Your task to perform on an android device: Check the weather Image 0: 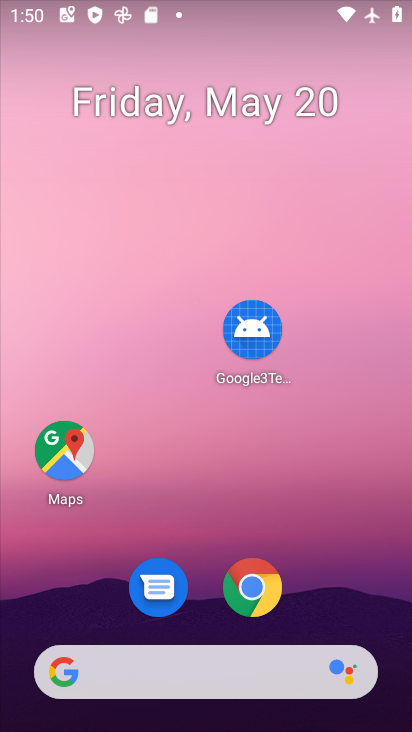
Step 0: click (213, 678)
Your task to perform on an android device: Check the weather Image 1: 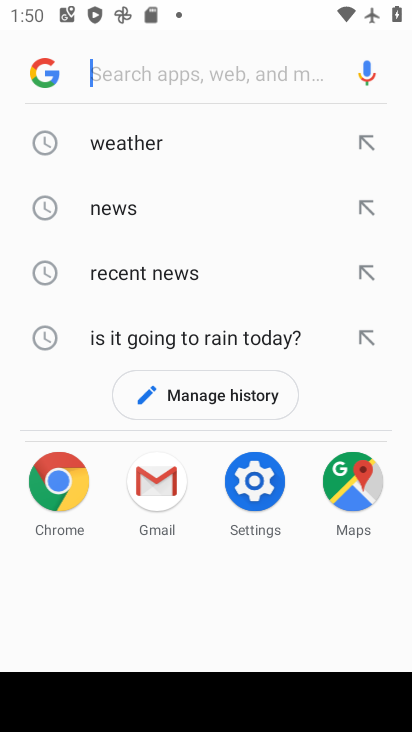
Step 1: click (117, 137)
Your task to perform on an android device: Check the weather Image 2: 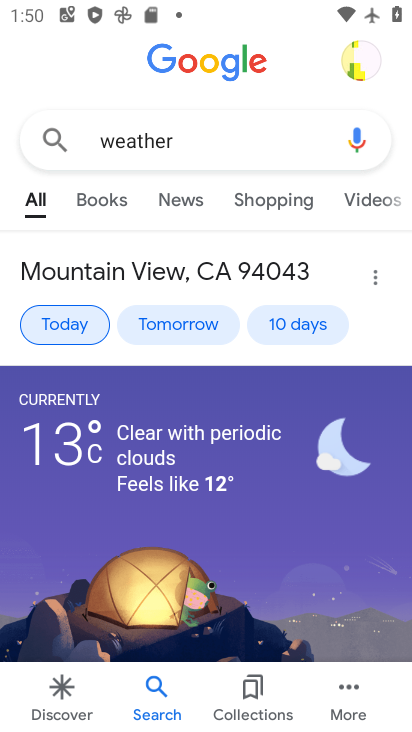
Step 2: task complete